Your task to perform on an android device: delete a single message in the gmail app Image 0: 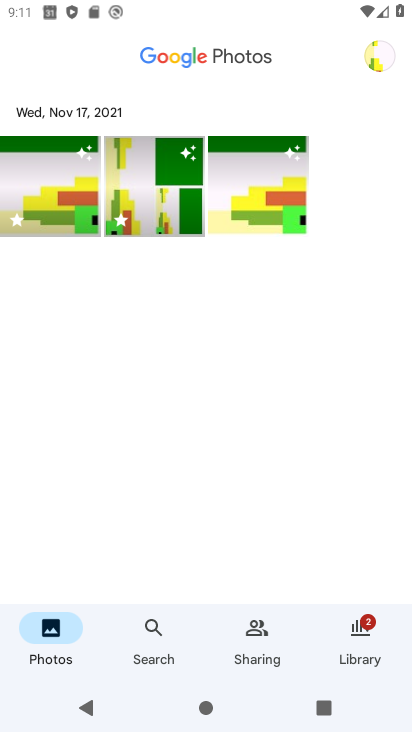
Step 0: press home button
Your task to perform on an android device: delete a single message in the gmail app Image 1: 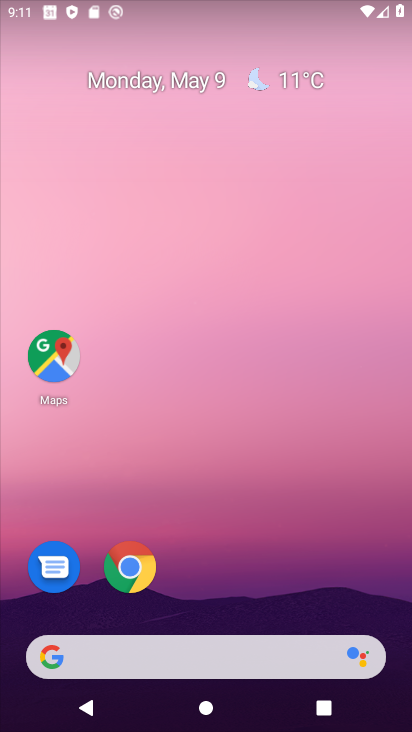
Step 1: drag from (289, 482) to (260, 98)
Your task to perform on an android device: delete a single message in the gmail app Image 2: 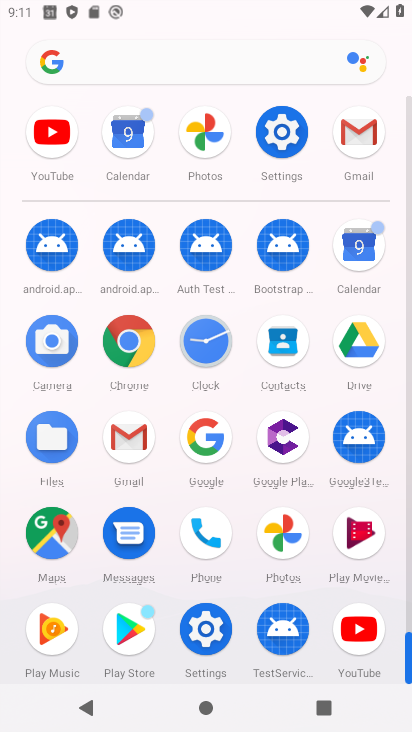
Step 2: click (364, 137)
Your task to perform on an android device: delete a single message in the gmail app Image 3: 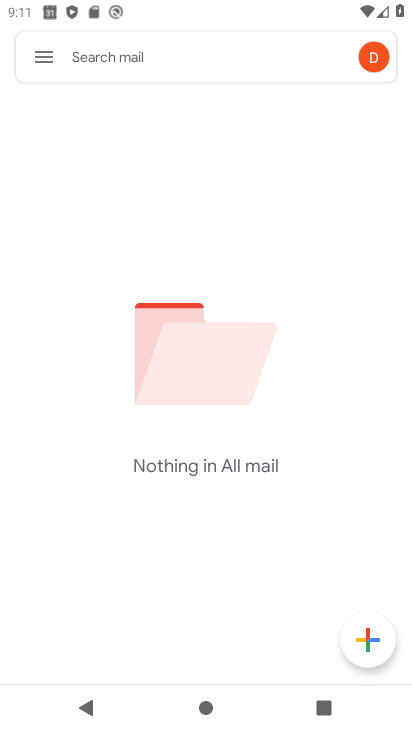
Step 3: task complete